Your task to perform on an android device: Go to location settings Image 0: 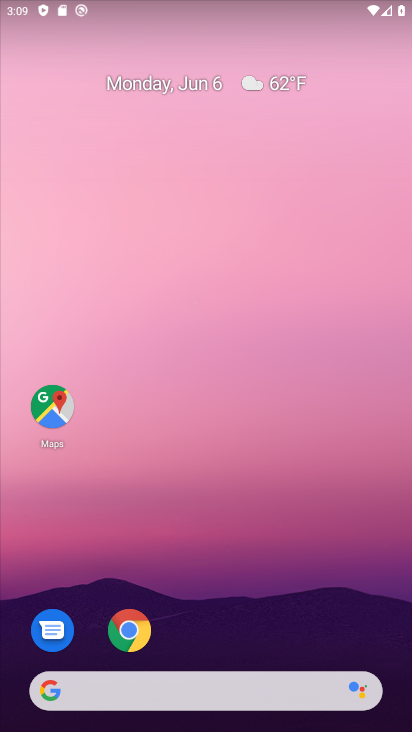
Step 0: drag from (195, 602) to (263, 249)
Your task to perform on an android device: Go to location settings Image 1: 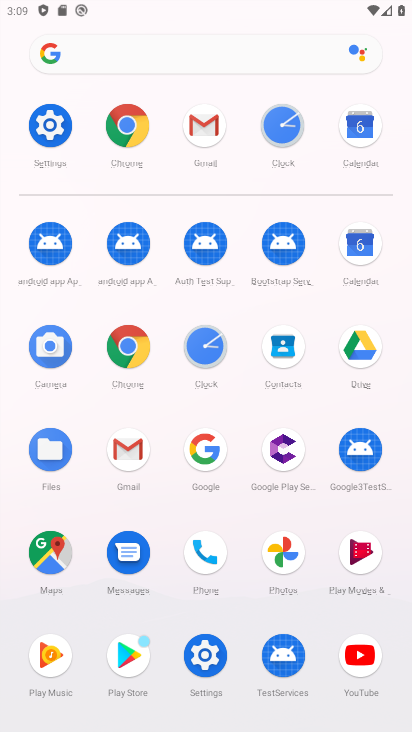
Step 1: click (39, 571)
Your task to perform on an android device: Go to location settings Image 2: 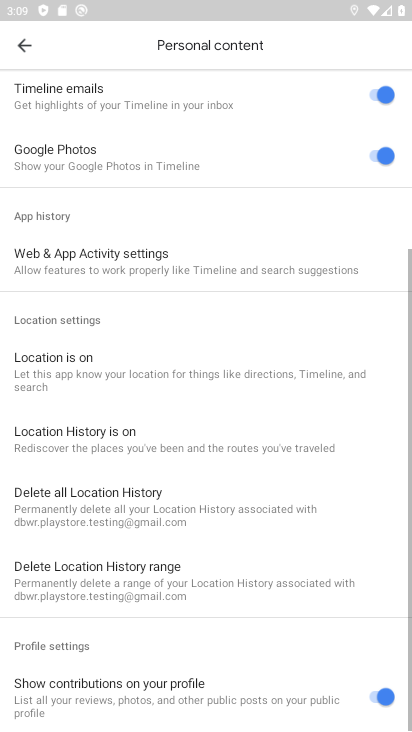
Step 2: press home button
Your task to perform on an android device: Go to location settings Image 3: 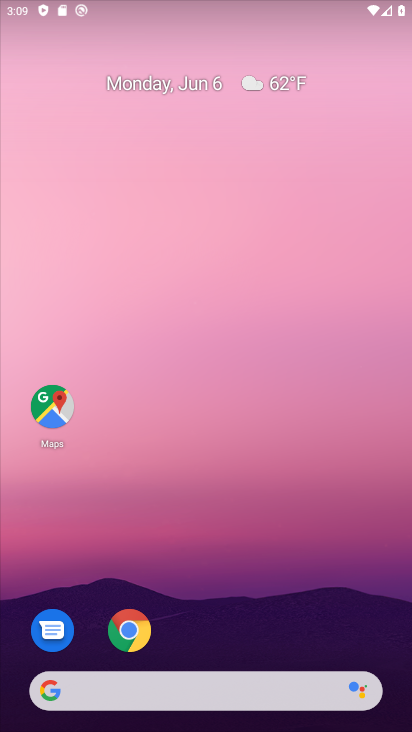
Step 3: drag from (265, 556) to (275, 185)
Your task to perform on an android device: Go to location settings Image 4: 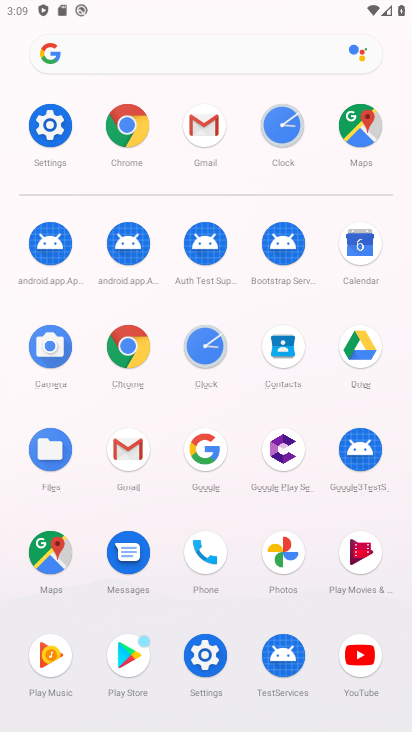
Step 4: click (61, 105)
Your task to perform on an android device: Go to location settings Image 5: 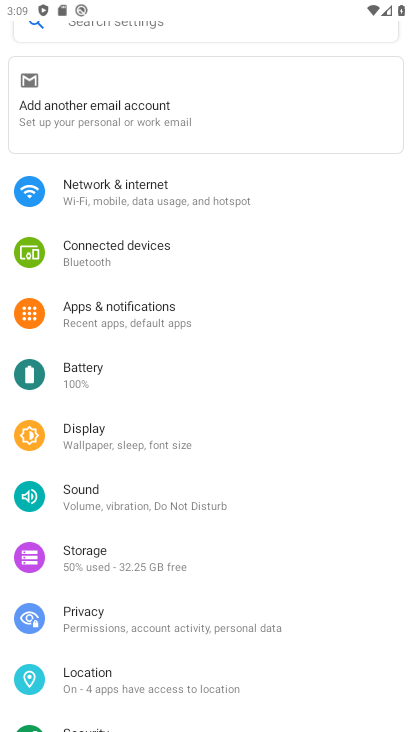
Step 5: drag from (174, 585) to (193, 369)
Your task to perform on an android device: Go to location settings Image 6: 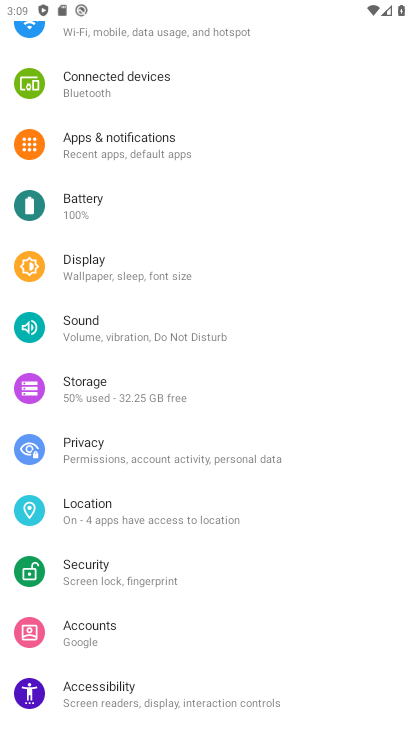
Step 6: click (92, 496)
Your task to perform on an android device: Go to location settings Image 7: 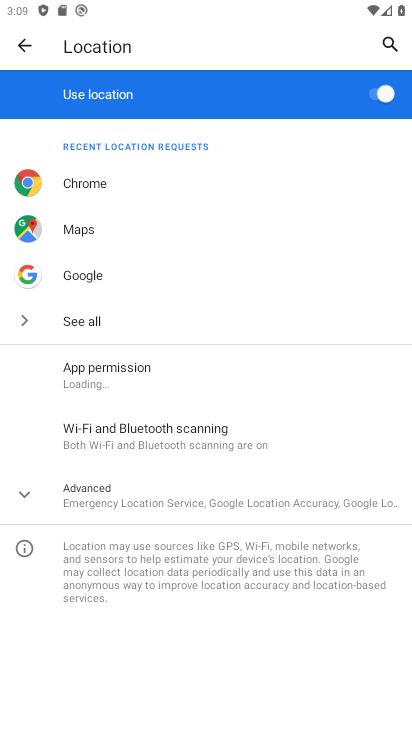
Step 7: task complete